Your task to perform on an android device: Open Maps and search for coffee Image 0: 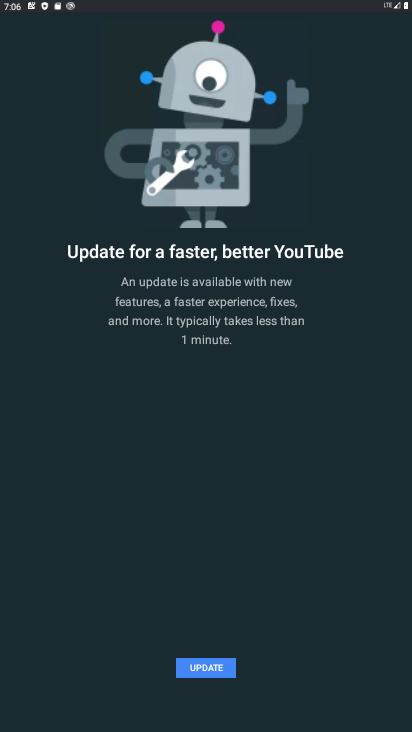
Step 0: press home button
Your task to perform on an android device: Open Maps and search for coffee Image 1: 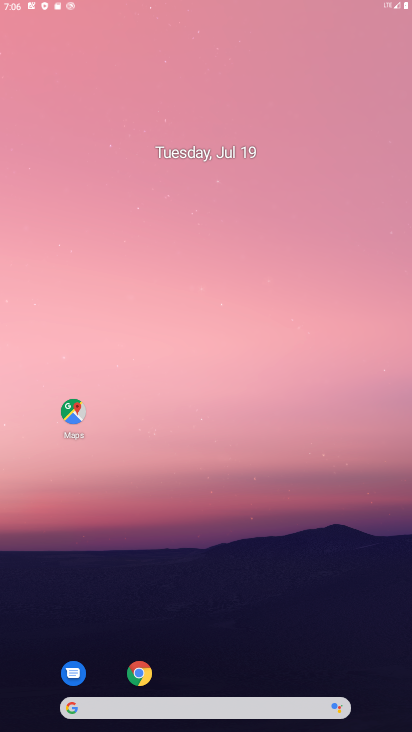
Step 1: drag from (356, 696) to (215, 30)
Your task to perform on an android device: Open Maps and search for coffee Image 2: 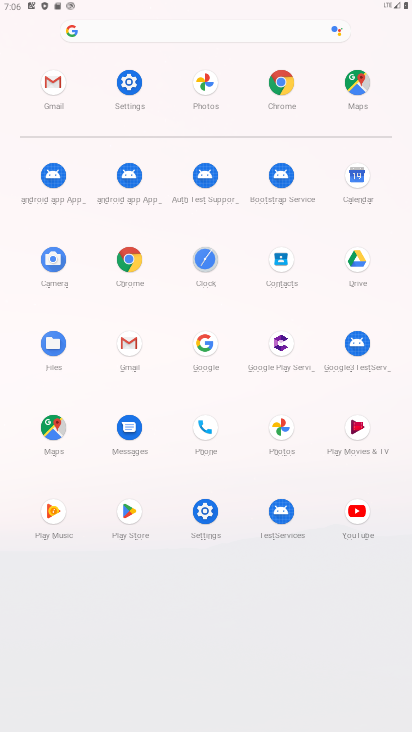
Step 2: click (52, 426)
Your task to perform on an android device: Open Maps and search for coffee Image 3: 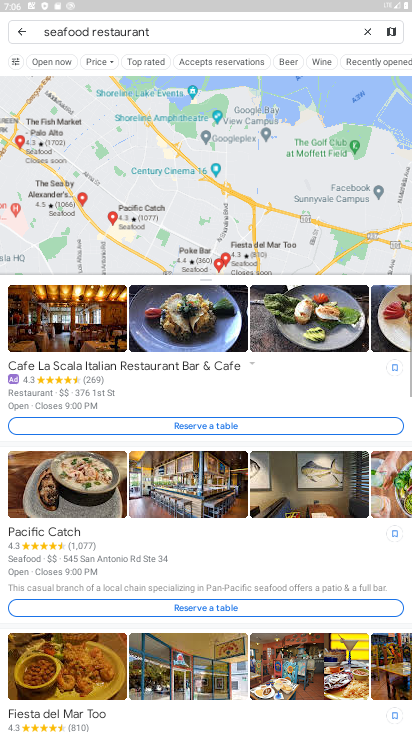
Step 3: click (365, 28)
Your task to perform on an android device: Open Maps and search for coffee Image 4: 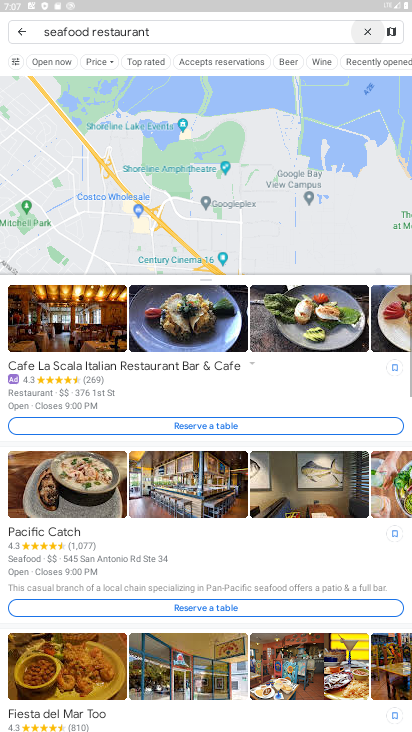
Step 4: click (178, 30)
Your task to perform on an android device: Open Maps and search for coffee Image 5: 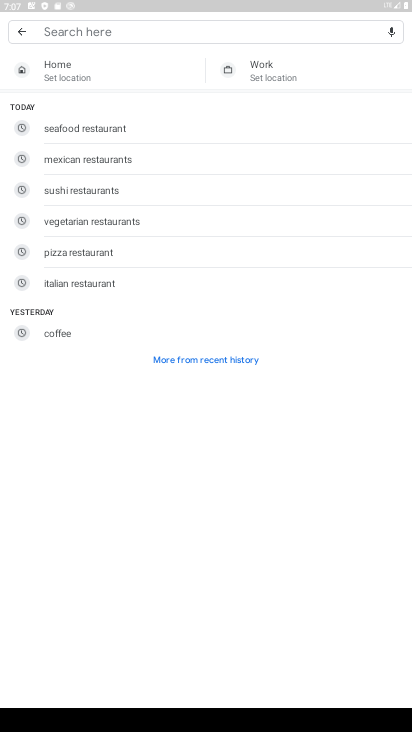
Step 5: click (60, 334)
Your task to perform on an android device: Open Maps and search for coffee Image 6: 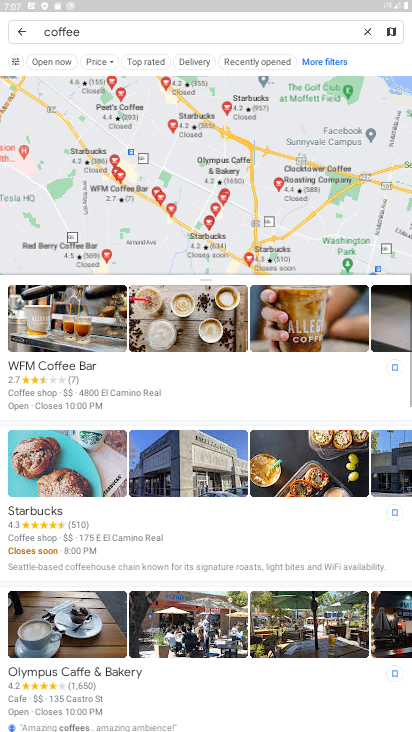
Step 6: task complete